Your task to perform on an android device: check battery use Image 0: 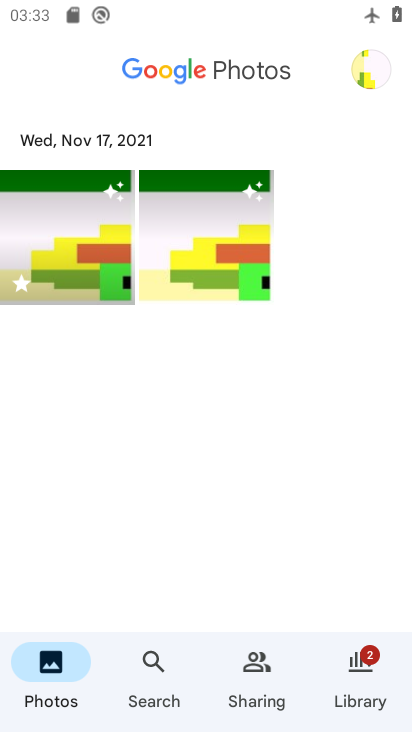
Step 0: press home button
Your task to perform on an android device: check battery use Image 1: 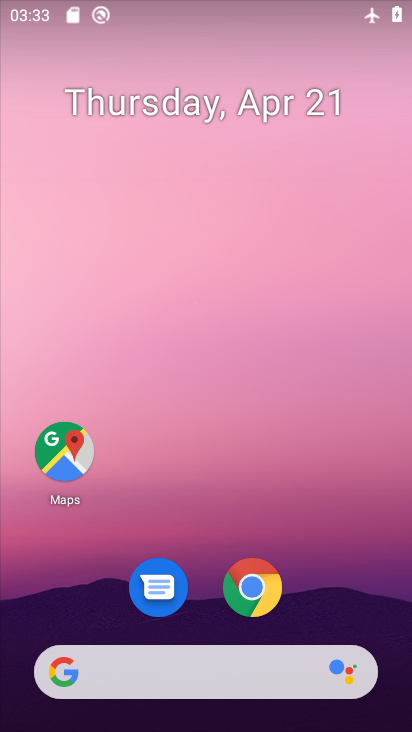
Step 1: drag from (348, 582) to (354, 226)
Your task to perform on an android device: check battery use Image 2: 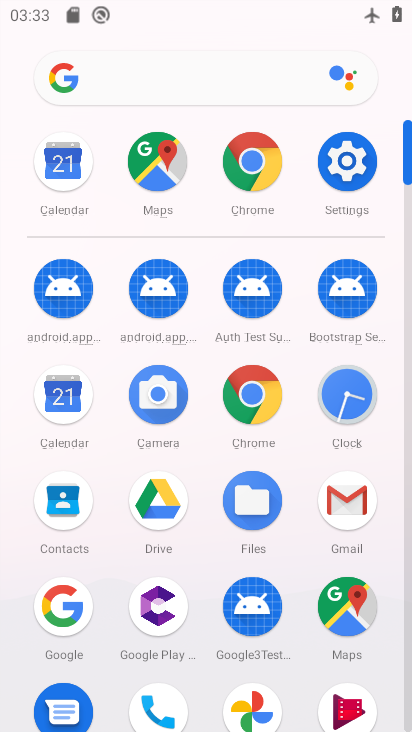
Step 2: click (360, 174)
Your task to perform on an android device: check battery use Image 3: 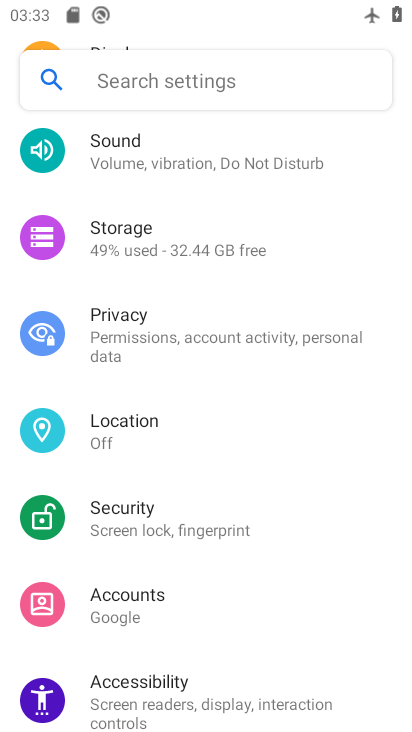
Step 3: drag from (347, 581) to (345, 408)
Your task to perform on an android device: check battery use Image 4: 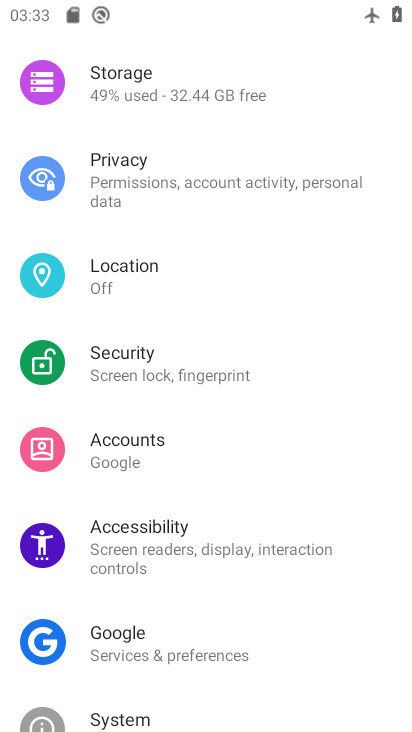
Step 4: drag from (338, 638) to (337, 414)
Your task to perform on an android device: check battery use Image 5: 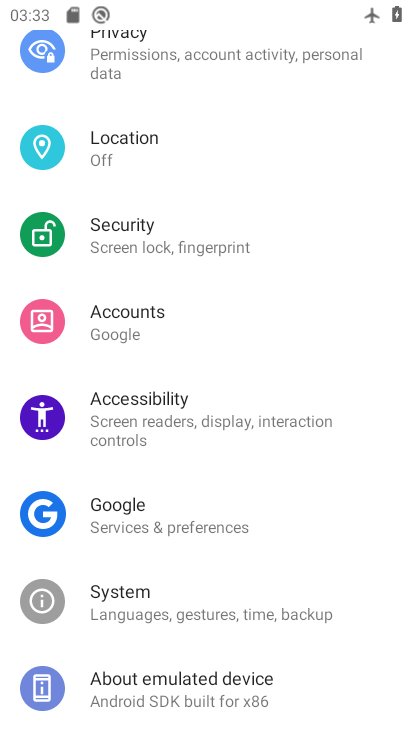
Step 5: drag from (345, 666) to (371, 506)
Your task to perform on an android device: check battery use Image 6: 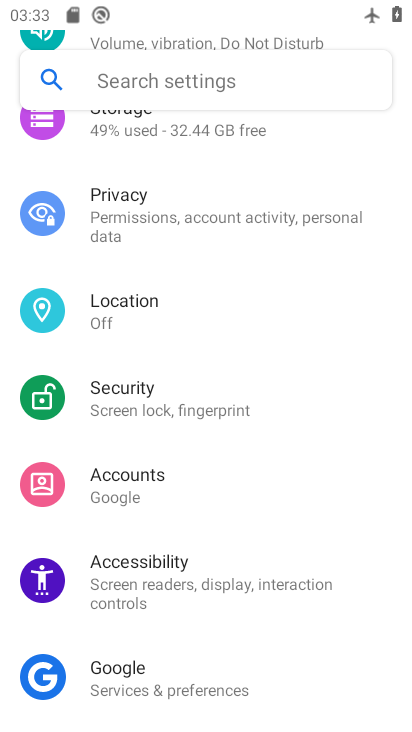
Step 6: drag from (360, 327) to (362, 493)
Your task to perform on an android device: check battery use Image 7: 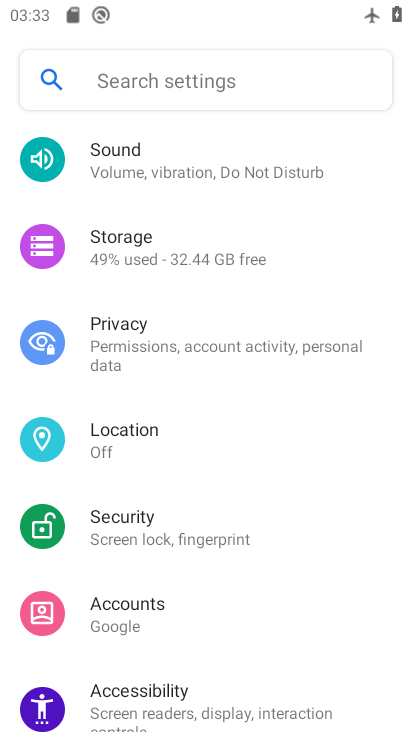
Step 7: drag from (360, 372) to (360, 506)
Your task to perform on an android device: check battery use Image 8: 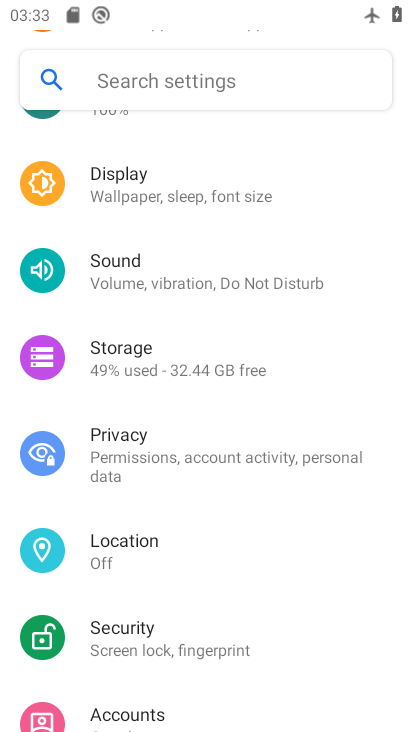
Step 8: drag from (378, 356) to (364, 523)
Your task to perform on an android device: check battery use Image 9: 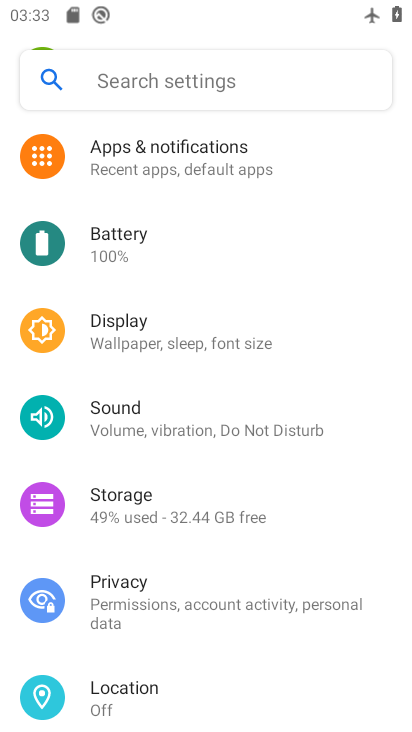
Step 9: drag from (369, 353) to (362, 507)
Your task to perform on an android device: check battery use Image 10: 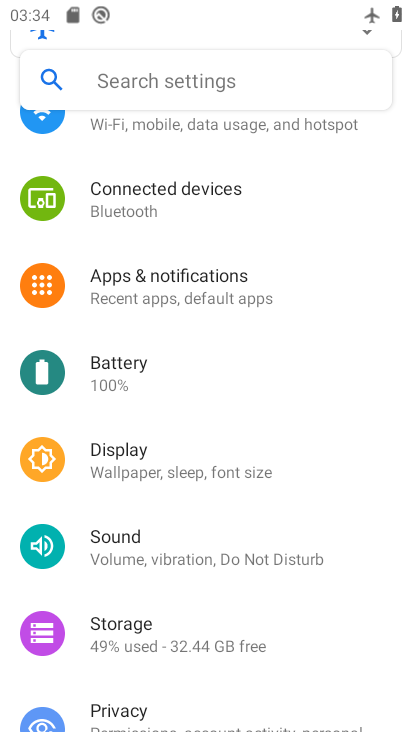
Step 10: drag from (361, 304) to (345, 480)
Your task to perform on an android device: check battery use Image 11: 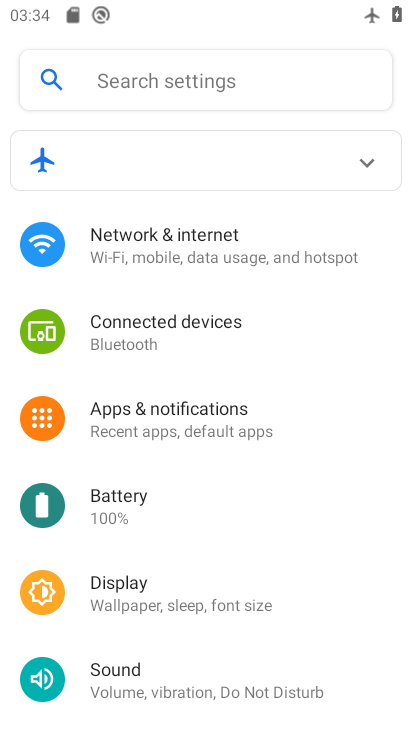
Step 11: click (140, 508)
Your task to perform on an android device: check battery use Image 12: 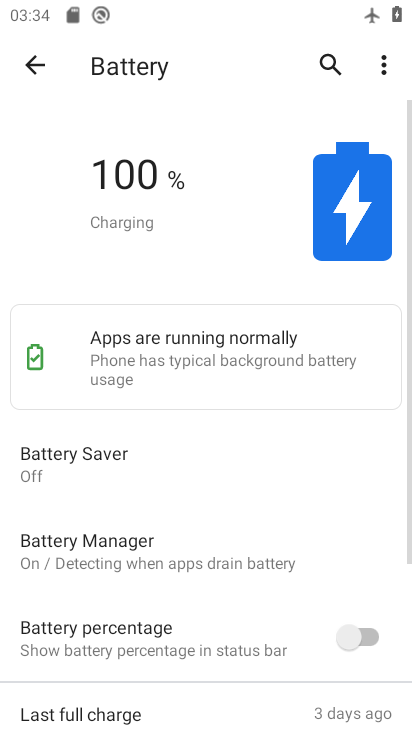
Step 12: drag from (268, 603) to (288, 480)
Your task to perform on an android device: check battery use Image 13: 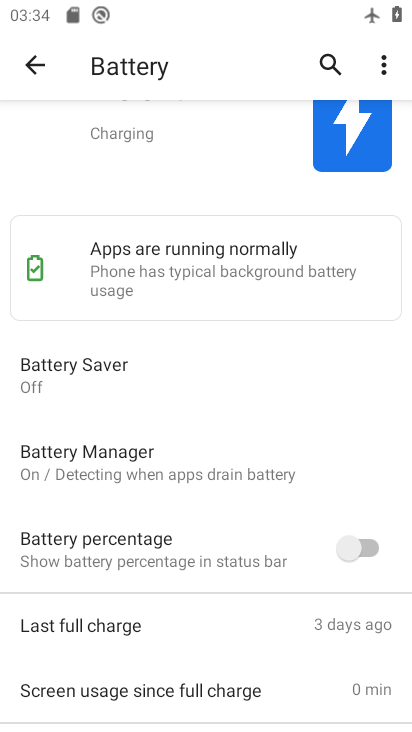
Step 13: click (388, 73)
Your task to perform on an android device: check battery use Image 14: 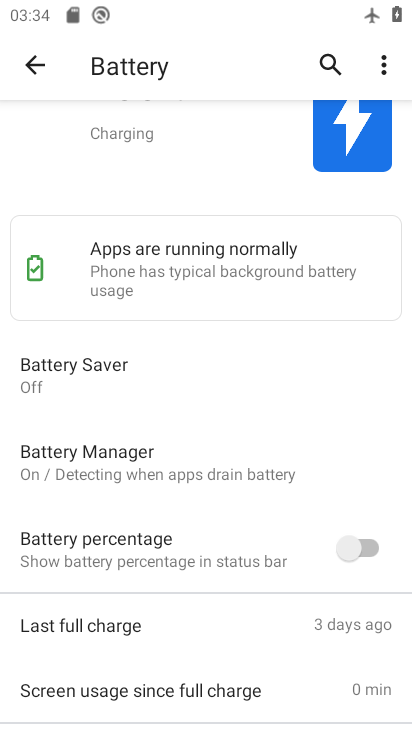
Step 14: click (380, 70)
Your task to perform on an android device: check battery use Image 15: 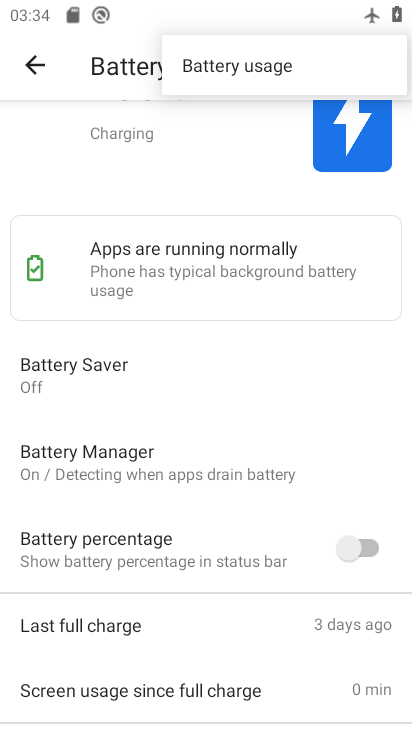
Step 15: click (315, 73)
Your task to perform on an android device: check battery use Image 16: 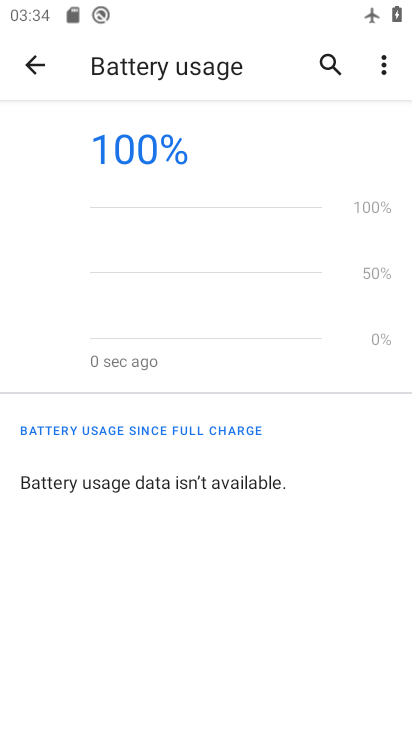
Step 16: task complete